Your task to perform on an android device: turn off notifications settings in the gmail app Image 0: 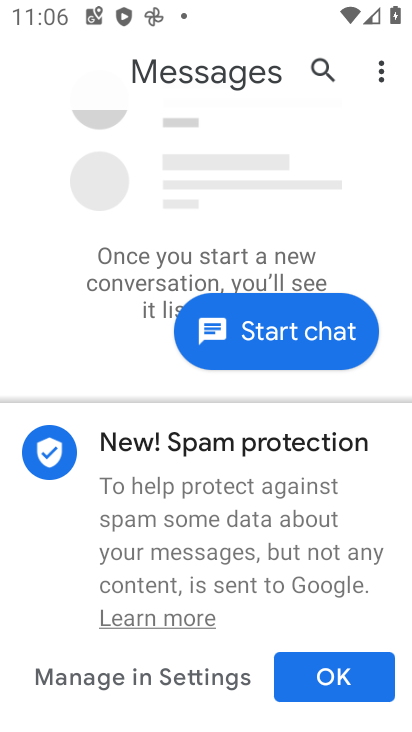
Step 0: press home button
Your task to perform on an android device: turn off notifications settings in the gmail app Image 1: 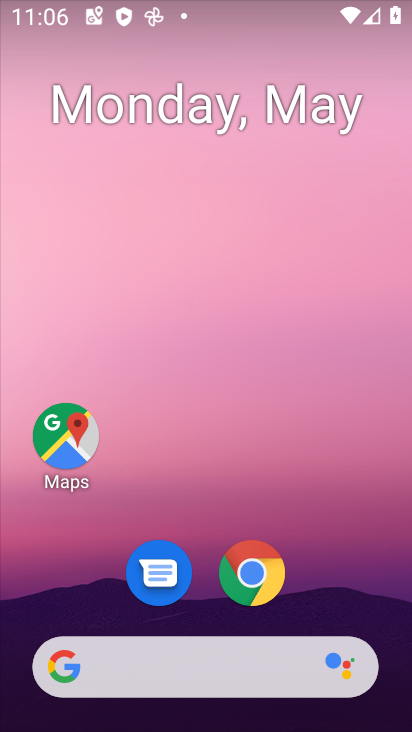
Step 1: drag from (322, 589) to (229, 12)
Your task to perform on an android device: turn off notifications settings in the gmail app Image 2: 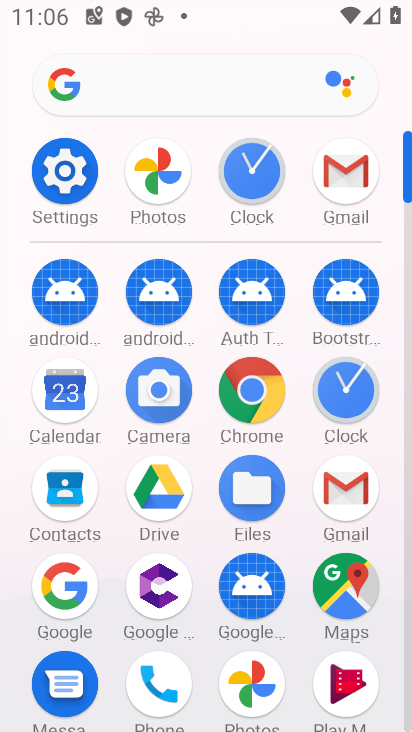
Step 2: click (340, 480)
Your task to perform on an android device: turn off notifications settings in the gmail app Image 3: 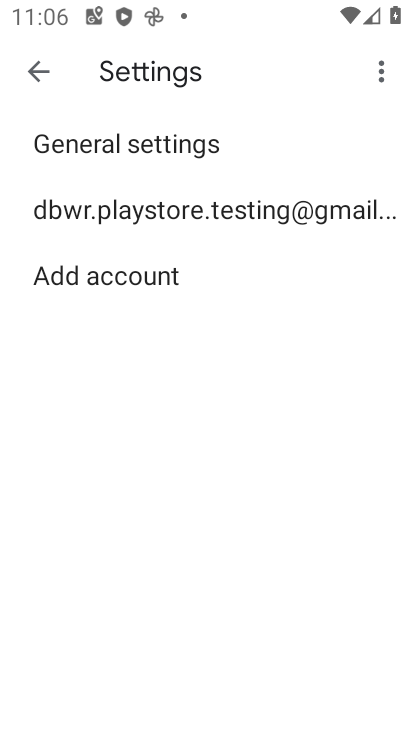
Step 3: press home button
Your task to perform on an android device: turn off notifications settings in the gmail app Image 4: 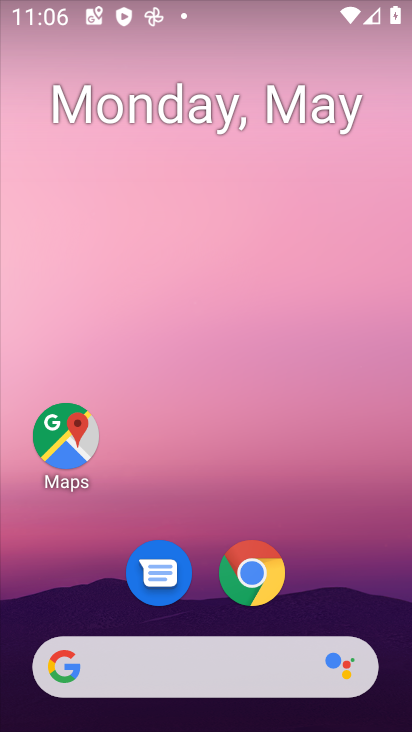
Step 4: drag from (328, 591) to (239, 22)
Your task to perform on an android device: turn off notifications settings in the gmail app Image 5: 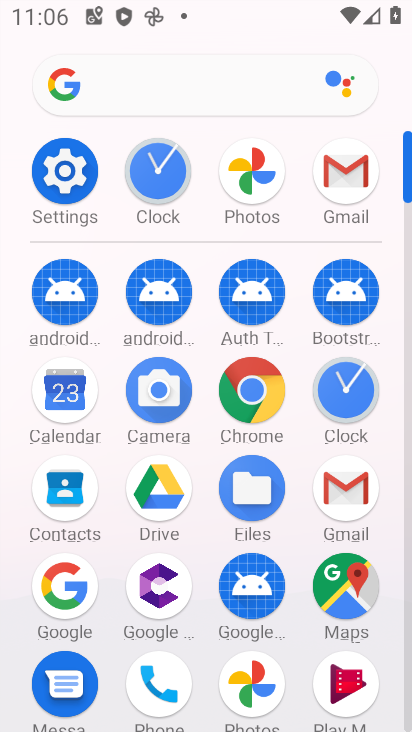
Step 5: click (343, 183)
Your task to perform on an android device: turn off notifications settings in the gmail app Image 6: 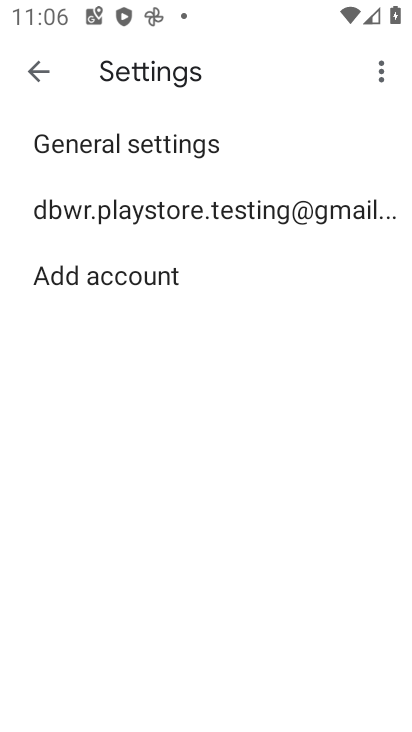
Step 6: click (111, 137)
Your task to perform on an android device: turn off notifications settings in the gmail app Image 7: 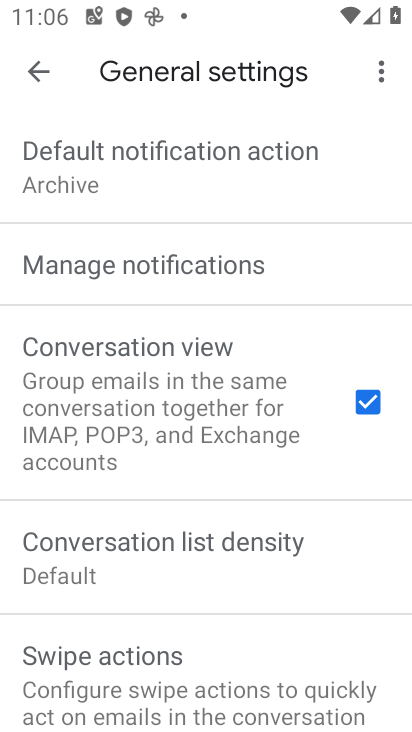
Step 7: click (147, 264)
Your task to perform on an android device: turn off notifications settings in the gmail app Image 8: 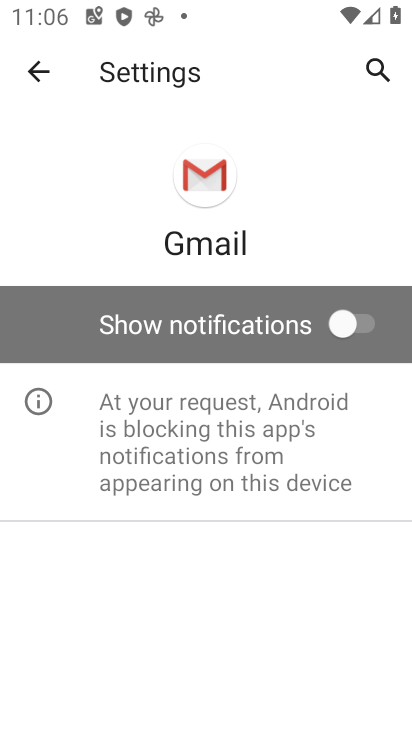
Step 8: task complete